Your task to perform on an android device: Open the web browser Image 0: 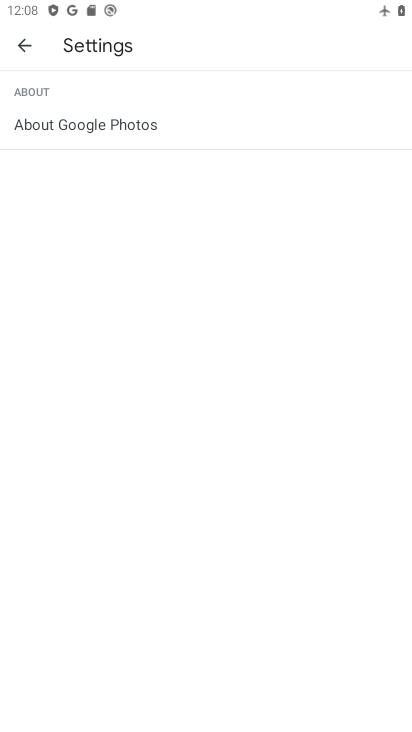
Step 0: press home button
Your task to perform on an android device: Open the web browser Image 1: 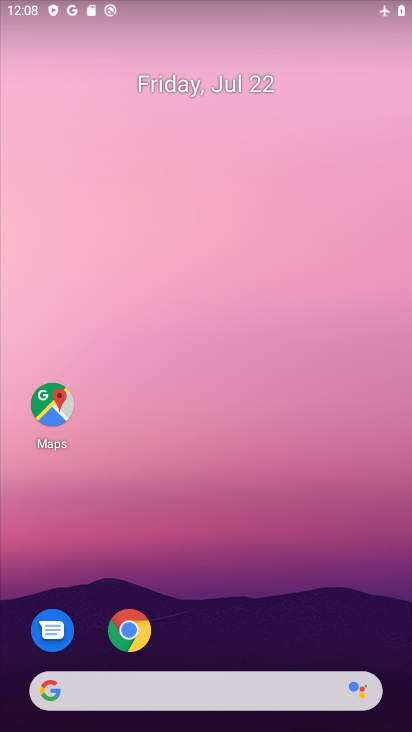
Step 1: click (215, 672)
Your task to perform on an android device: Open the web browser Image 2: 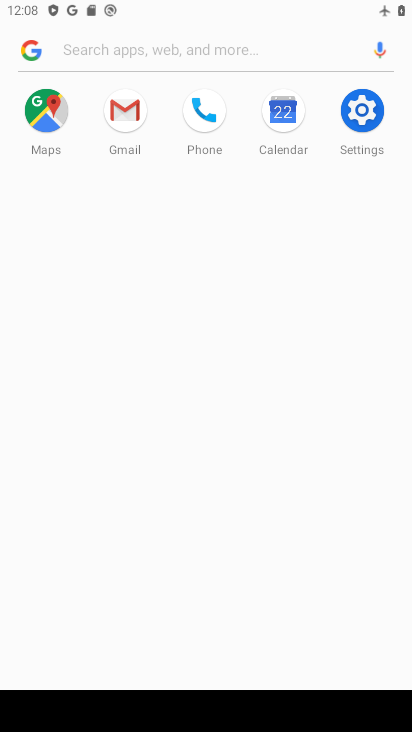
Step 2: task complete